Your task to perform on an android device: Go to battery settings Image 0: 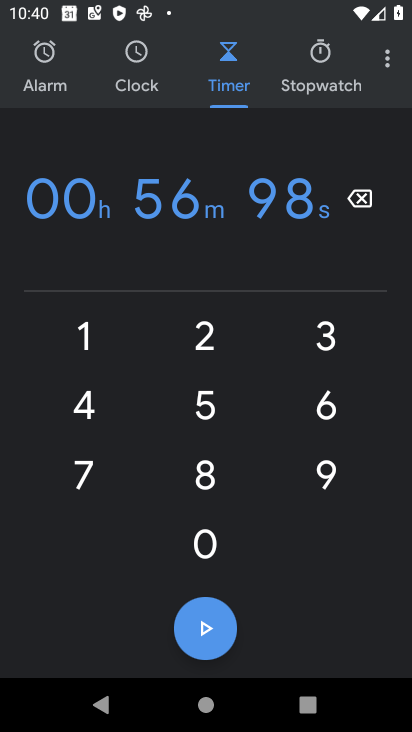
Step 0: press home button
Your task to perform on an android device: Go to battery settings Image 1: 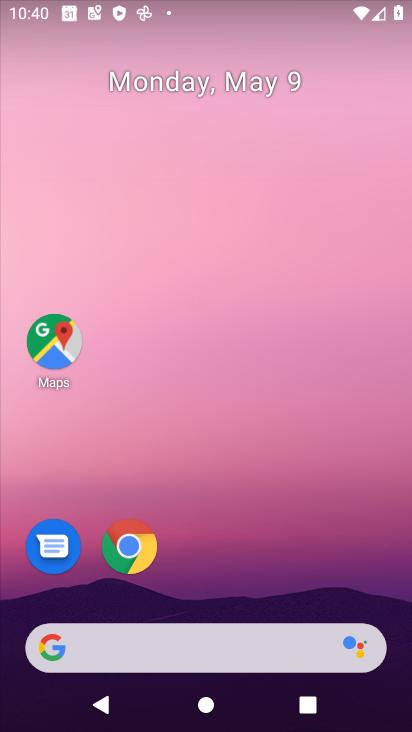
Step 1: drag from (256, 719) to (302, 60)
Your task to perform on an android device: Go to battery settings Image 2: 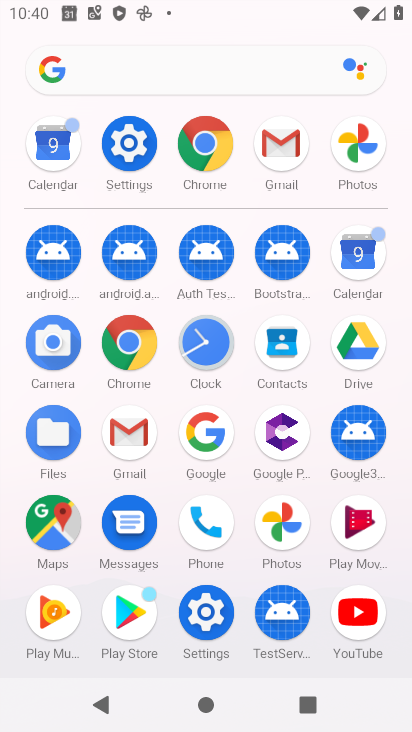
Step 2: click (127, 140)
Your task to perform on an android device: Go to battery settings Image 3: 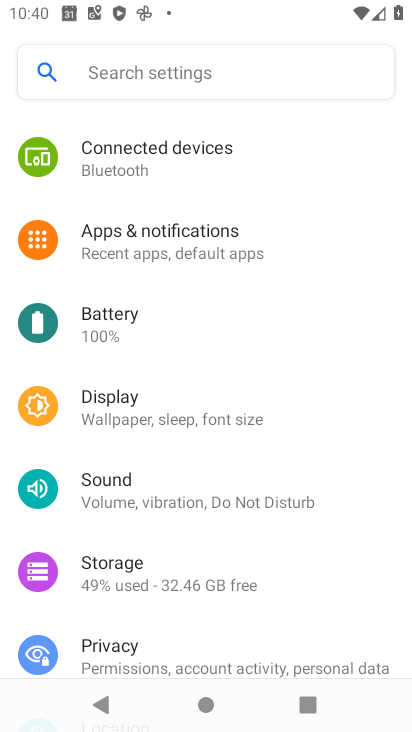
Step 3: click (151, 328)
Your task to perform on an android device: Go to battery settings Image 4: 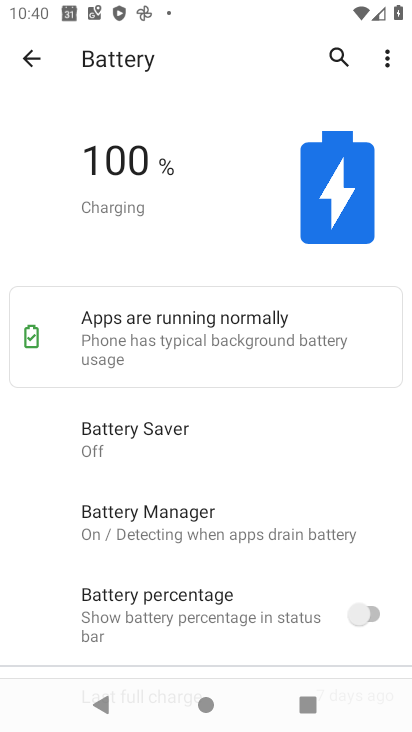
Step 4: task complete